Your task to perform on an android device: turn notification dots off Image 0: 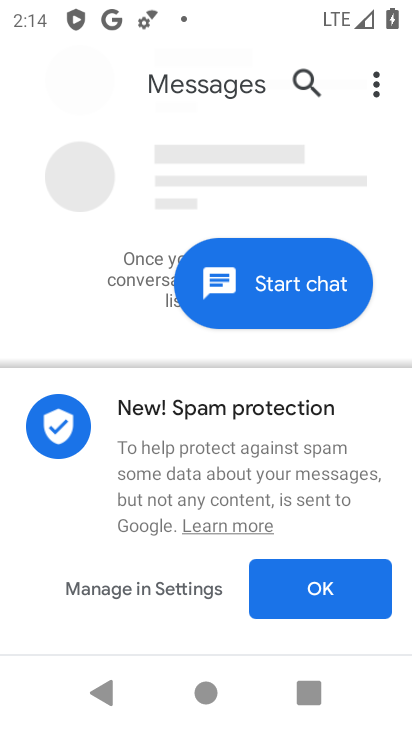
Step 0: press home button
Your task to perform on an android device: turn notification dots off Image 1: 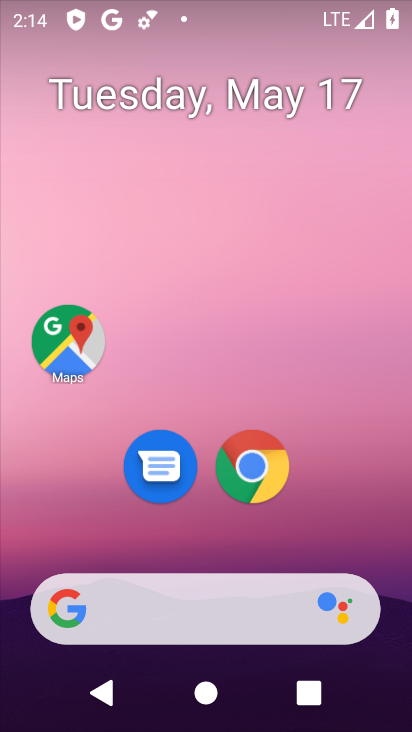
Step 1: drag from (375, 502) to (212, 59)
Your task to perform on an android device: turn notification dots off Image 2: 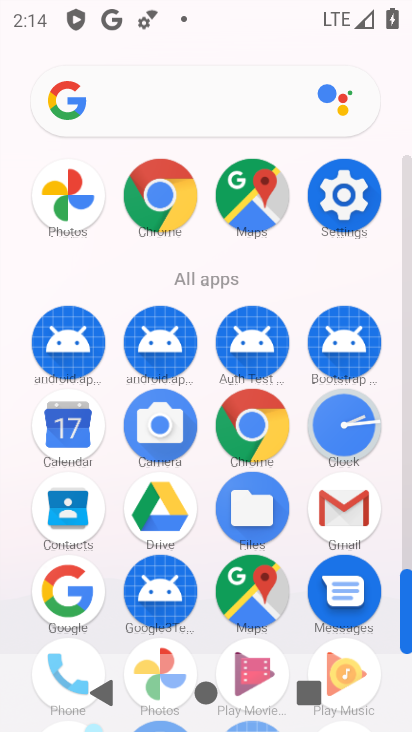
Step 2: click (357, 176)
Your task to perform on an android device: turn notification dots off Image 3: 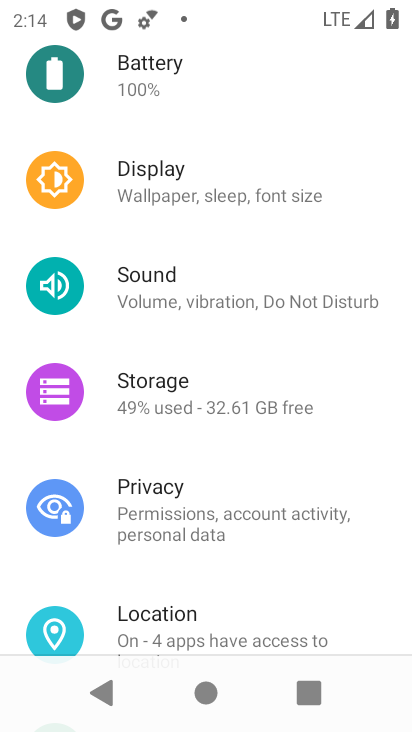
Step 3: drag from (214, 636) to (244, 185)
Your task to perform on an android device: turn notification dots off Image 4: 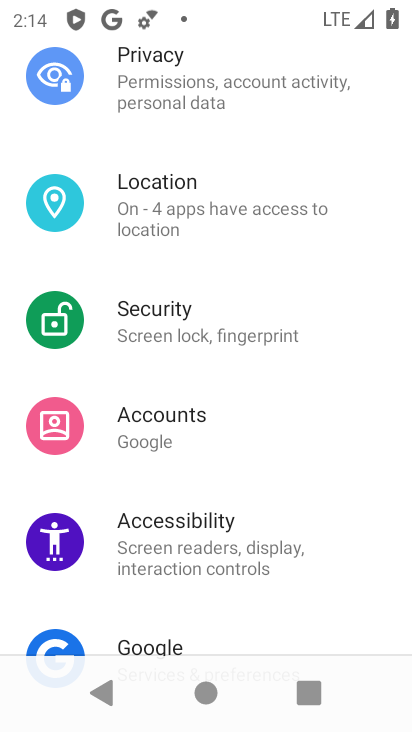
Step 4: drag from (244, 196) to (221, 728)
Your task to perform on an android device: turn notification dots off Image 5: 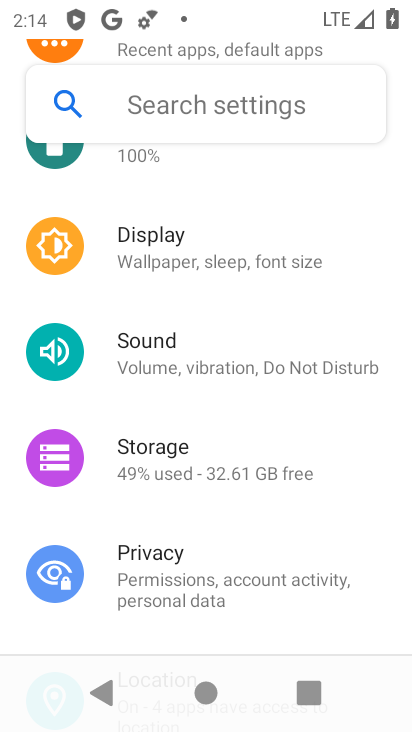
Step 5: drag from (257, 307) to (243, 731)
Your task to perform on an android device: turn notification dots off Image 6: 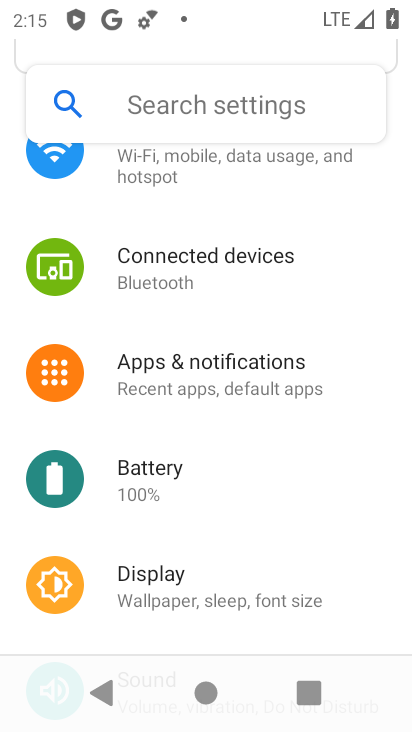
Step 6: click (239, 383)
Your task to perform on an android device: turn notification dots off Image 7: 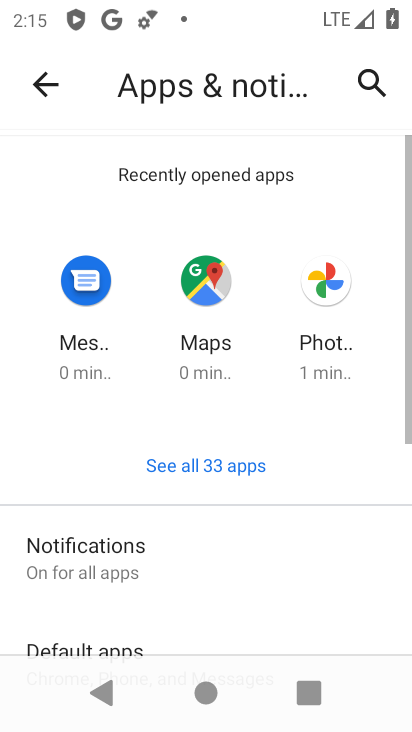
Step 7: drag from (274, 645) to (321, 313)
Your task to perform on an android device: turn notification dots off Image 8: 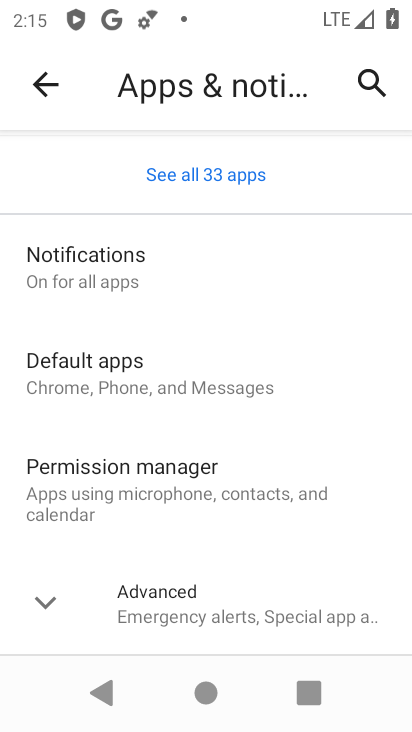
Step 8: click (106, 270)
Your task to perform on an android device: turn notification dots off Image 9: 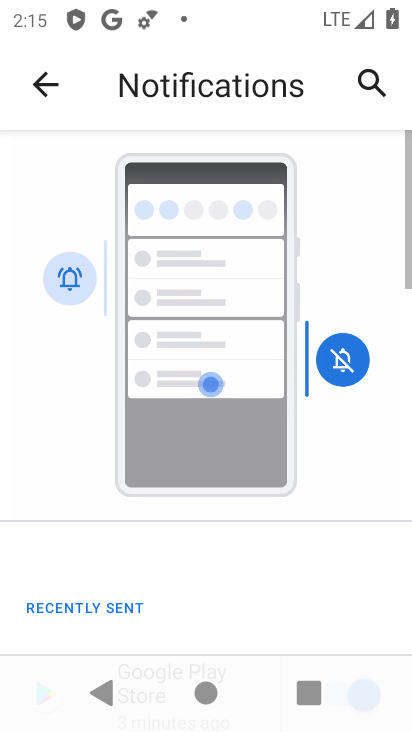
Step 9: drag from (235, 605) to (278, 203)
Your task to perform on an android device: turn notification dots off Image 10: 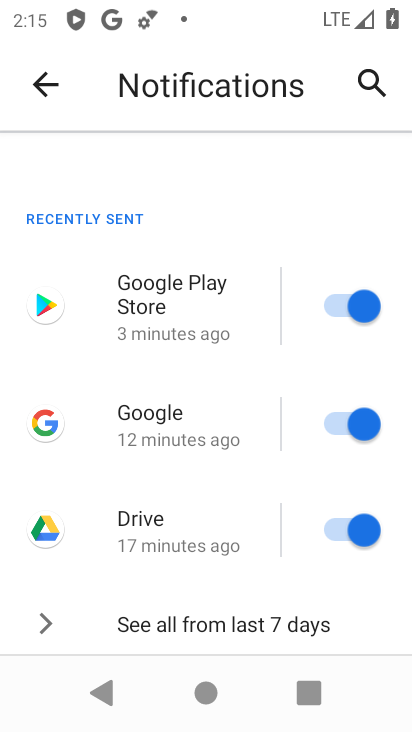
Step 10: drag from (198, 557) to (280, 128)
Your task to perform on an android device: turn notification dots off Image 11: 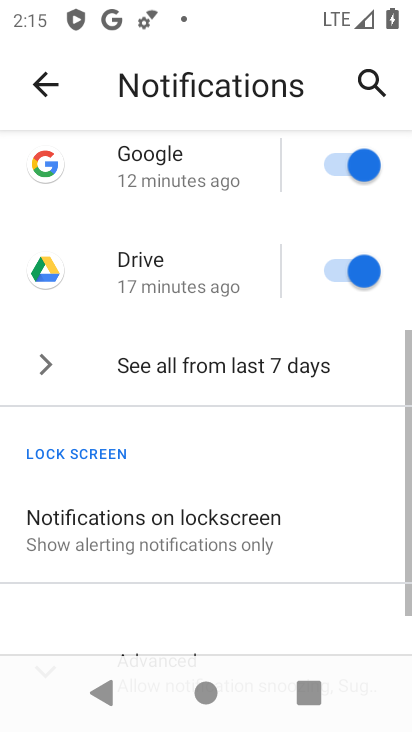
Step 11: drag from (183, 516) to (289, 186)
Your task to perform on an android device: turn notification dots off Image 12: 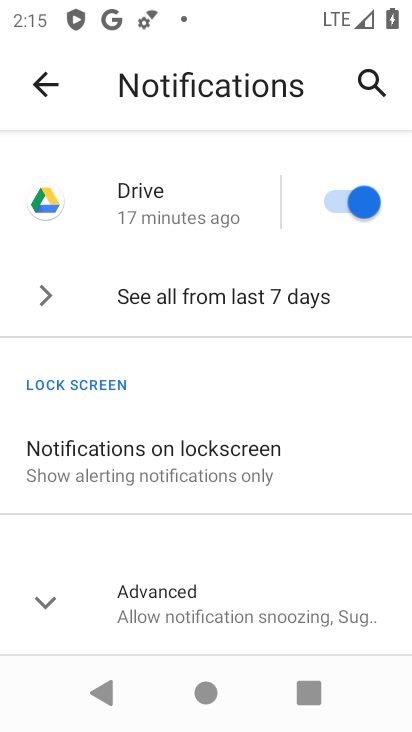
Step 12: click (187, 608)
Your task to perform on an android device: turn notification dots off Image 13: 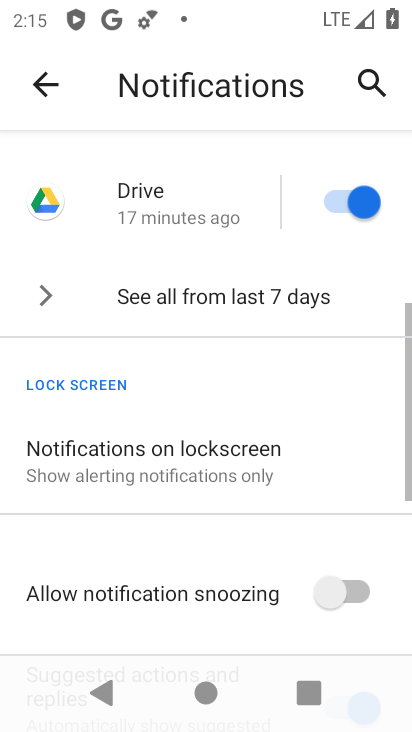
Step 13: drag from (244, 539) to (263, 121)
Your task to perform on an android device: turn notification dots off Image 14: 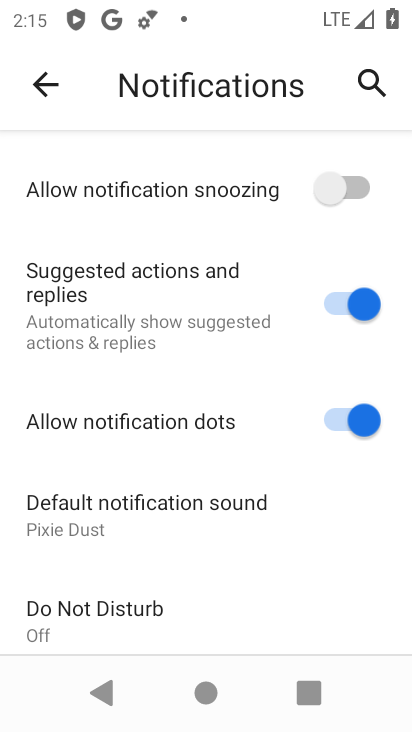
Step 14: click (329, 432)
Your task to perform on an android device: turn notification dots off Image 15: 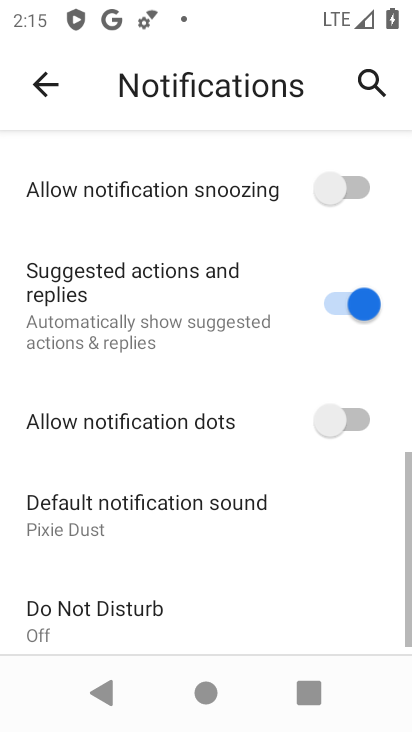
Step 15: task complete